Your task to perform on an android device: change alarm snooze length Image 0: 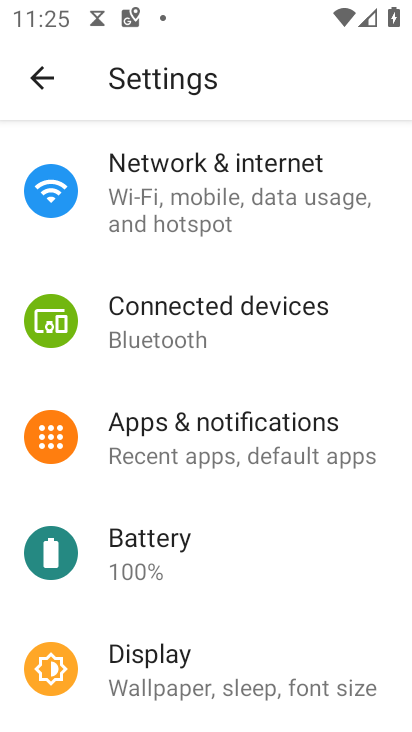
Step 0: press home button
Your task to perform on an android device: change alarm snooze length Image 1: 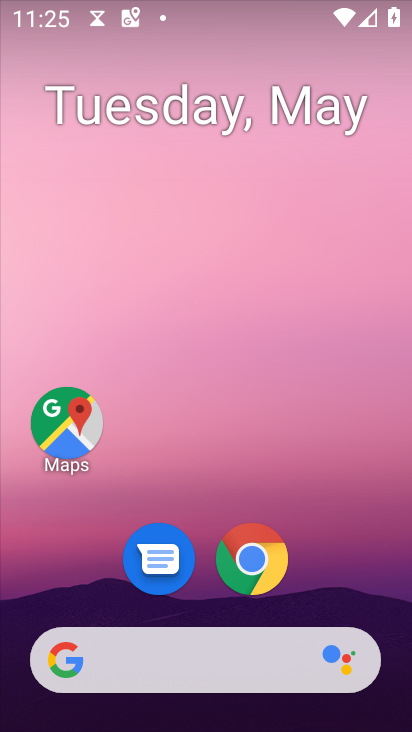
Step 1: drag from (367, 533) to (350, 41)
Your task to perform on an android device: change alarm snooze length Image 2: 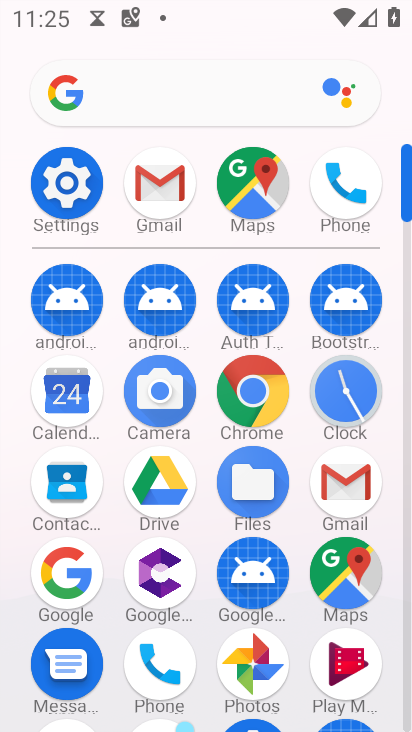
Step 2: click (346, 385)
Your task to perform on an android device: change alarm snooze length Image 3: 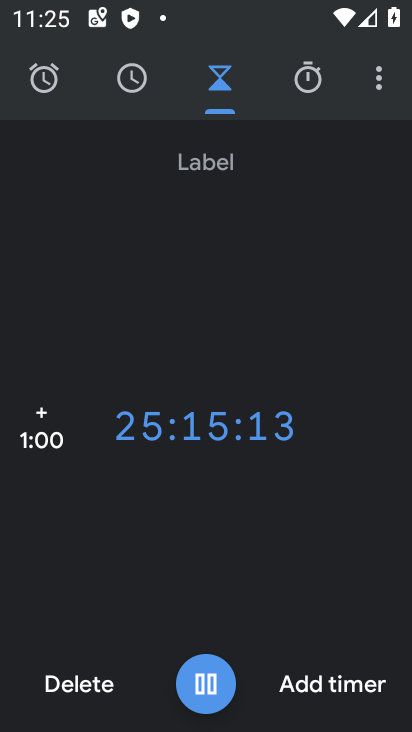
Step 3: click (381, 75)
Your task to perform on an android device: change alarm snooze length Image 4: 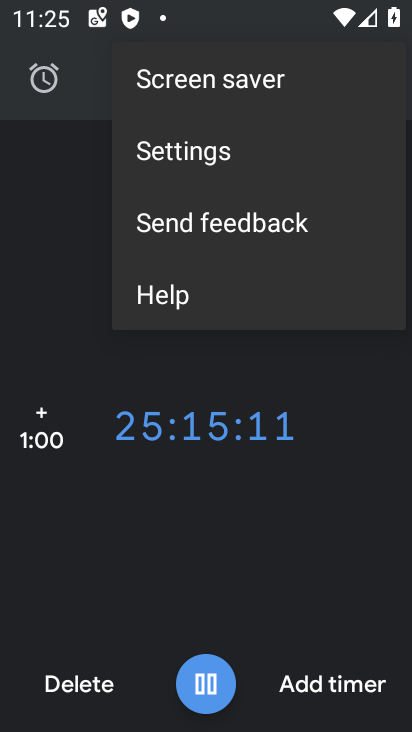
Step 4: click (222, 160)
Your task to perform on an android device: change alarm snooze length Image 5: 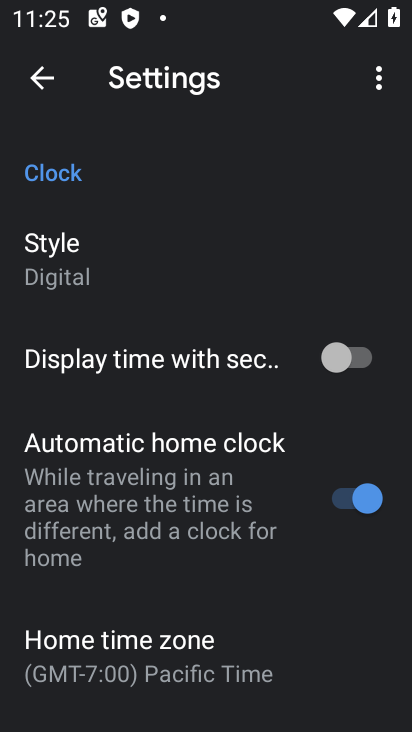
Step 5: drag from (192, 550) to (177, 105)
Your task to perform on an android device: change alarm snooze length Image 6: 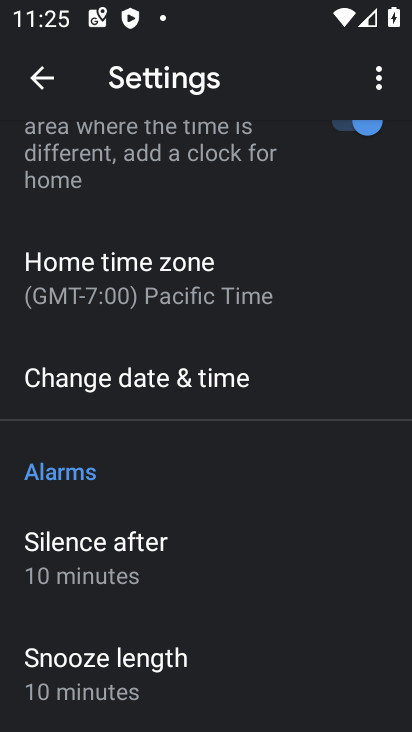
Step 6: drag from (203, 569) to (226, 214)
Your task to perform on an android device: change alarm snooze length Image 7: 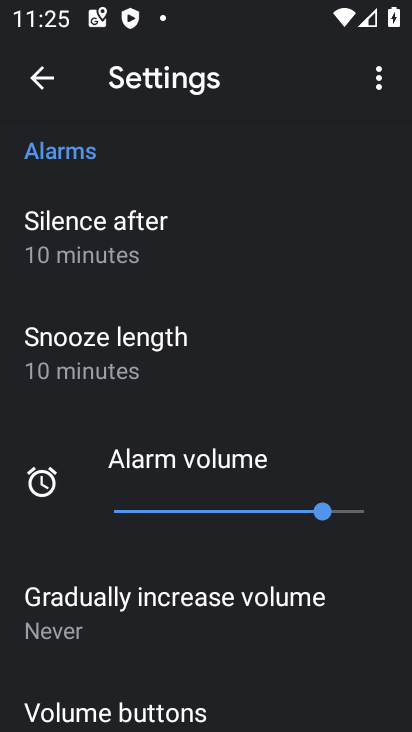
Step 7: click (120, 311)
Your task to perform on an android device: change alarm snooze length Image 8: 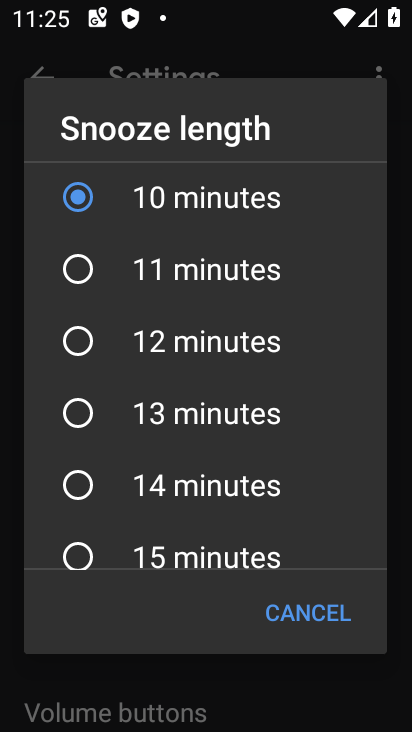
Step 8: click (79, 349)
Your task to perform on an android device: change alarm snooze length Image 9: 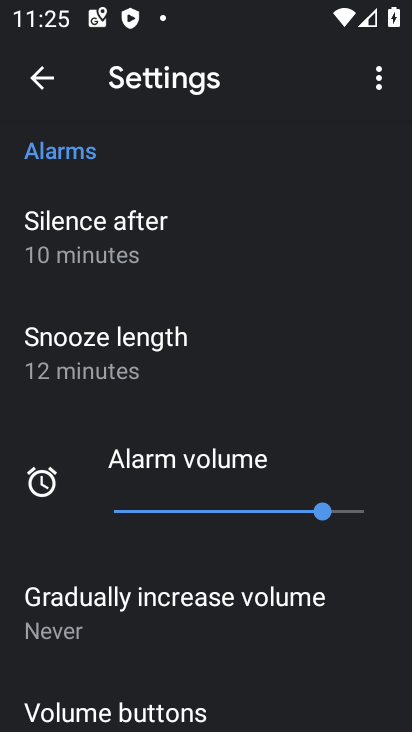
Step 9: task complete